Your task to perform on an android device: open chrome and create a bookmark for the current page Image 0: 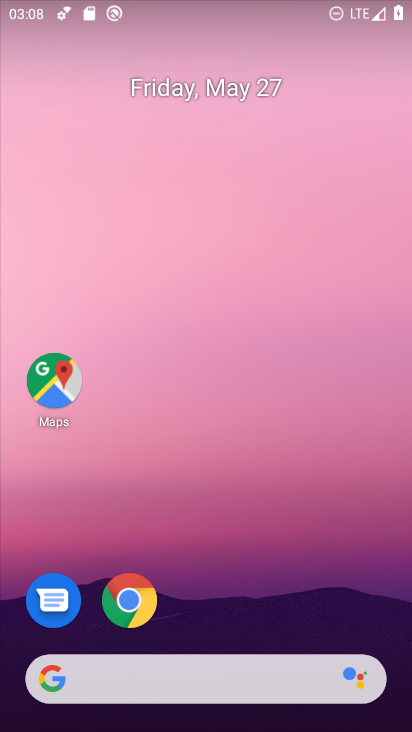
Step 0: click (124, 602)
Your task to perform on an android device: open chrome and create a bookmark for the current page Image 1: 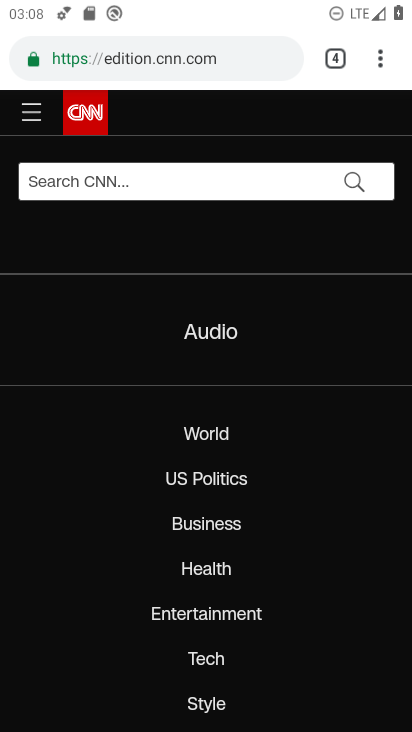
Step 1: click (379, 61)
Your task to perform on an android device: open chrome and create a bookmark for the current page Image 2: 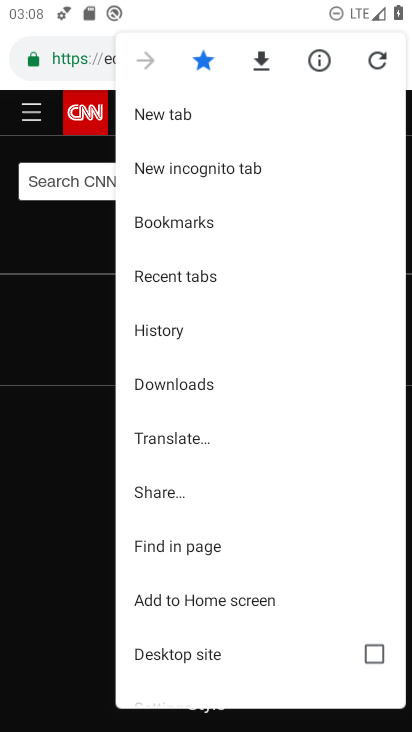
Step 2: task complete